Your task to perform on an android device: Open notification settings Image 0: 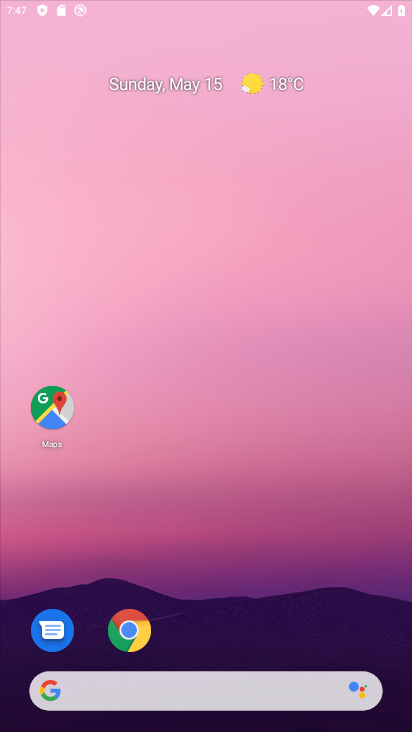
Step 0: click (266, 187)
Your task to perform on an android device: Open notification settings Image 1: 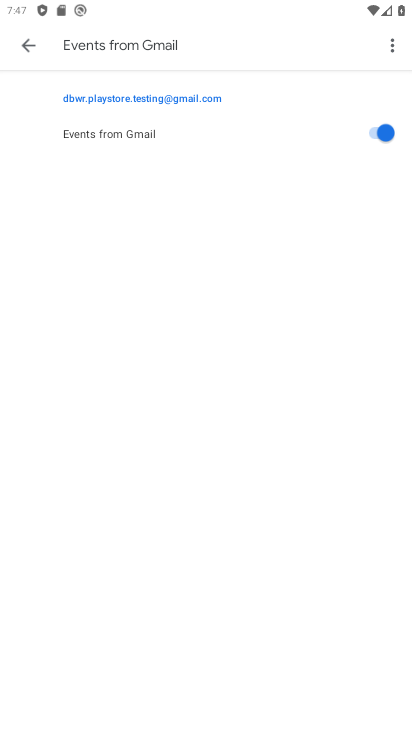
Step 1: press home button
Your task to perform on an android device: Open notification settings Image 2: 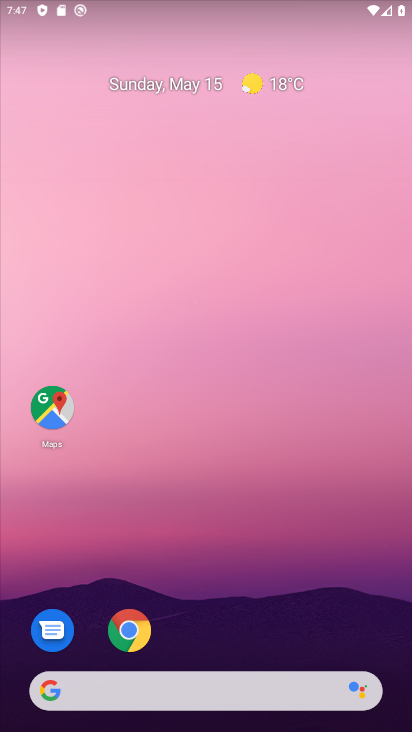
Step 2: drag from (185, 656) to (201, 243)
Your task to perform on an android device: Open notification settings Image 3: 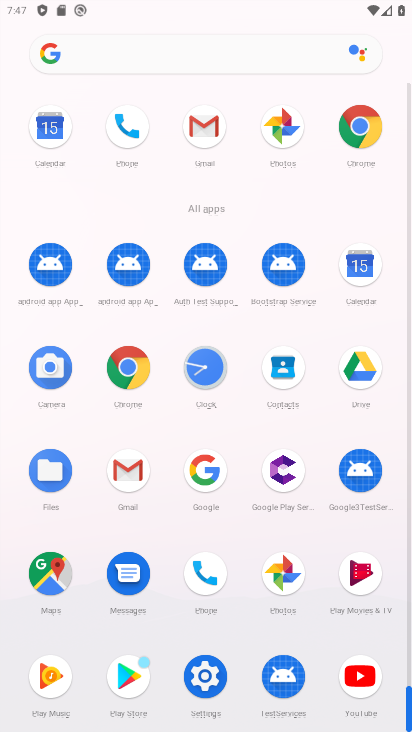
Step 3: click (202, 670)
Your task to perform on an android device: Open notification settings Image 4: 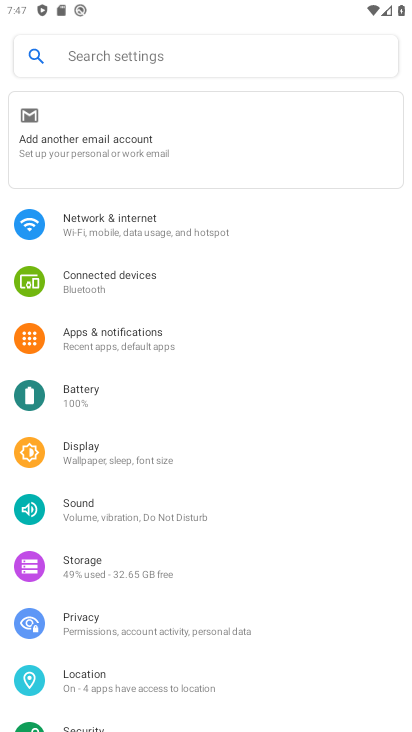
Step 4: click (177, 63)
Your task to perform on an android device: Open notification settings Image 5: 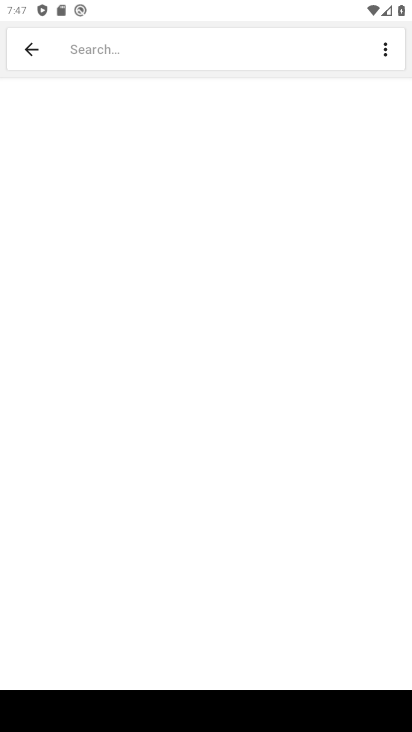
Step 5: click (19, 31)
Your task to perform on an android device: Open notification settings Image 6: 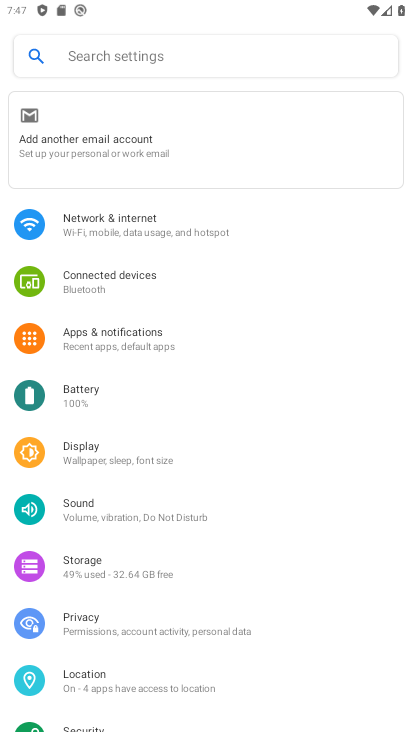
Step 6: click (120, 350)
Your task to perform on an android device: Open notification settings Image 7: 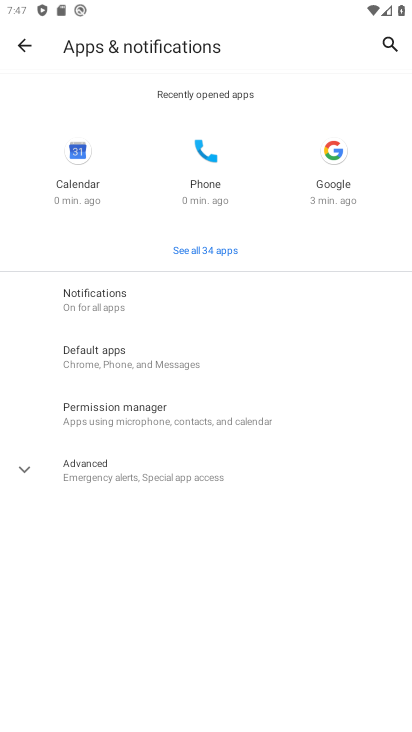
Step 7: click (150, 302)
Your task to perform on an android device: Open notification settings Image 8: 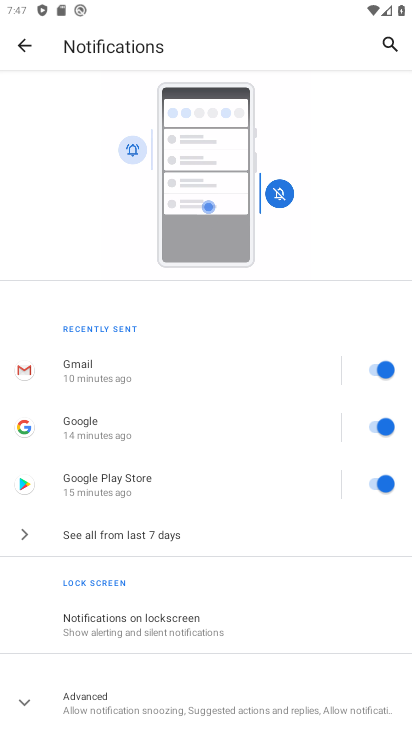
Step 8: task complete